Your task to perform on an android device: Open the calendar and show me this week's events Image 0: 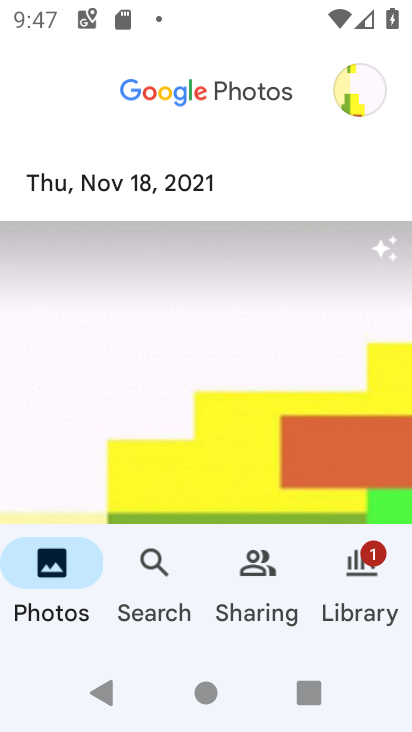
Step 0: press home button
Your task to perform on an android device: Open the calendar and show me this week's events Image 1: 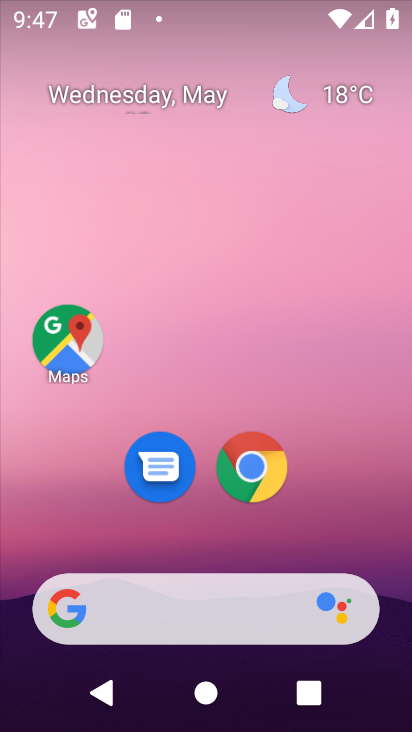
Step 1: drag from (372, 462) to (357, 79)
Your task to perform on an android device: Open the calendar and show me this week's events Image 2: 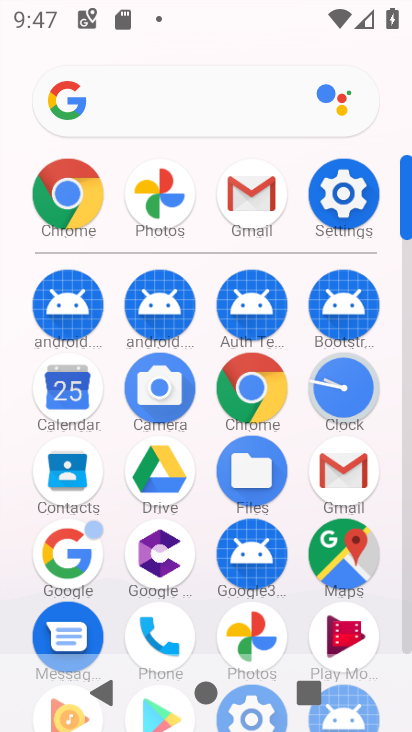
Step 2: click (67, 401)
Your task to perform on an android device: Open the calendar and show me this week's events Image 3: 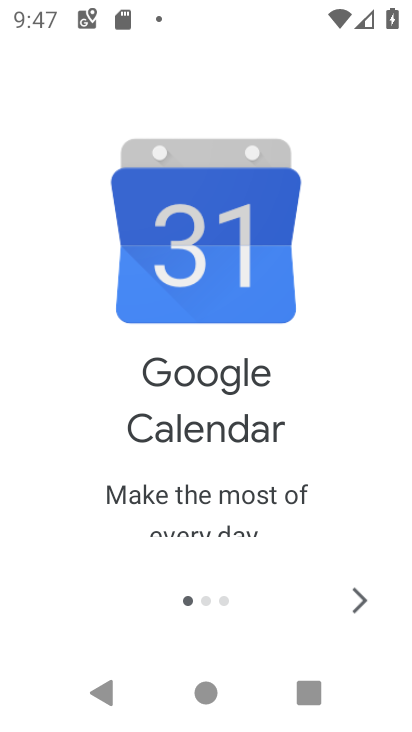
Step 3: click (368, 605)
Your task to perform on an android device: Open the calendar and show me this week's events Image 4: 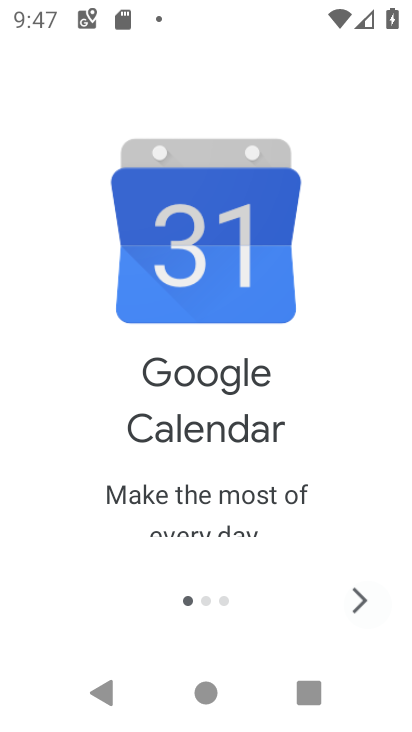
Step 4: click (368, 605)
Your task to perform on an android device: Open the calendar and show me this week's events Image 5: 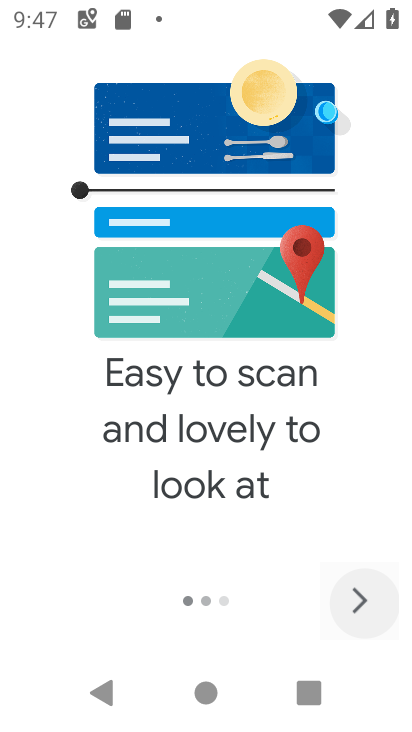
Step 5: click (368, 604)
Your task to perform on an android device: Open the calendar and show me this week's events Image 6: 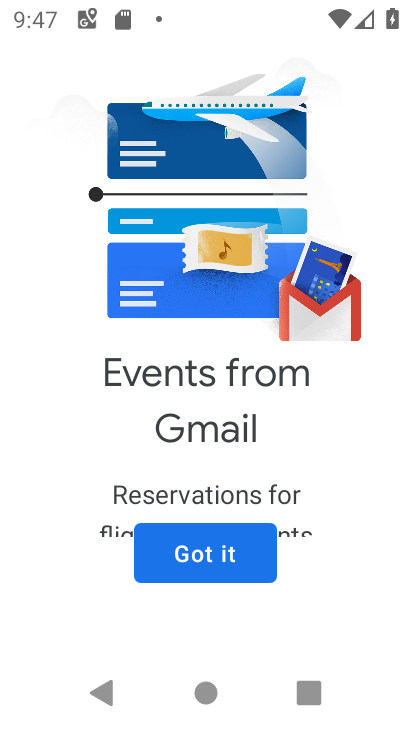
Step 6: click (367, 603)
Your task to perform on an android device: Open the calendar and show me this week's events Image 7: 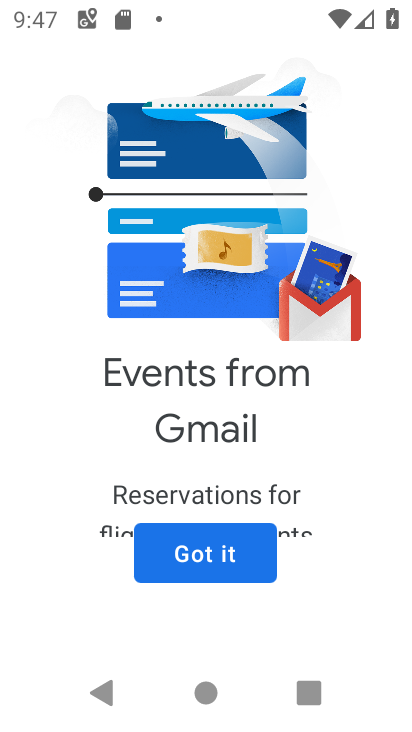
Step 7: click (250, 560)
Your task to perform on an android device: Open the calendar and show me this week's events Image 8: 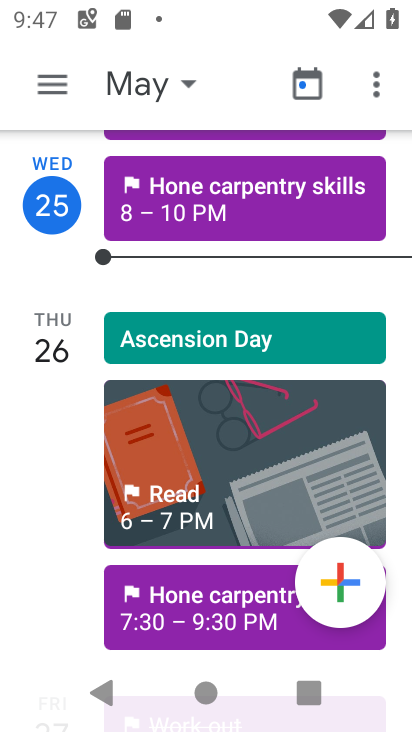
Step 8: click (140, 91)
Your task to perform on an android device: Open the calendar and show me this week's events Image 9: 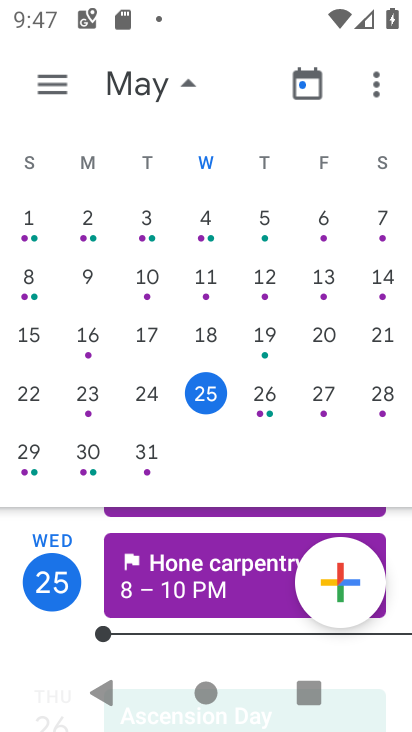
Step 9: click (33, 77)
Your task to perform on an android device: Open the calendar and show me this week's events Image 10: 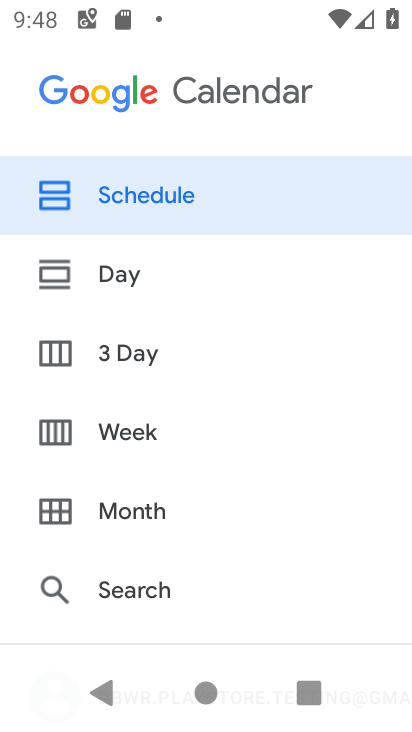
Step 10: click (134, 419)
Your task to perform on an android device: Open the calendar and show me this week's events Image 11: 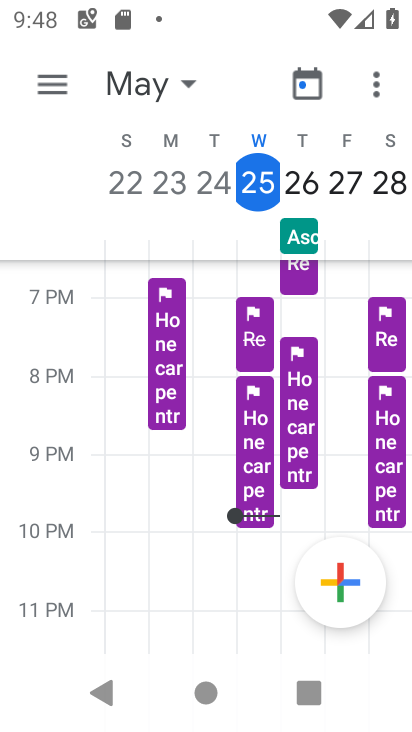
Step 11: task complete